Your task to perform on an android device: Open ESPN.com Image 0: 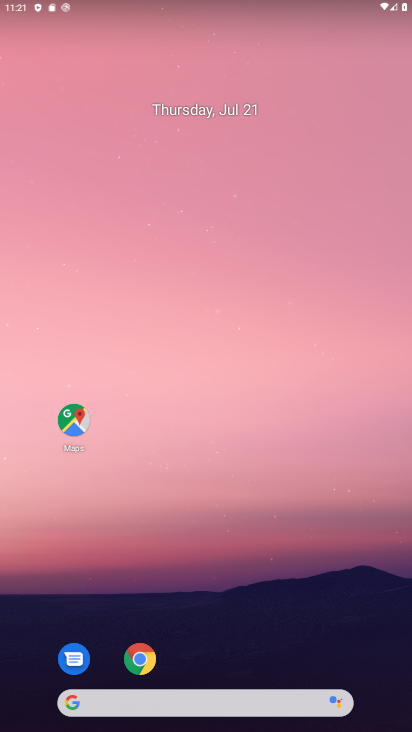
Step 0: click (130, 674)
Your task to perform on an android device: Open ESPN.com Image 1: 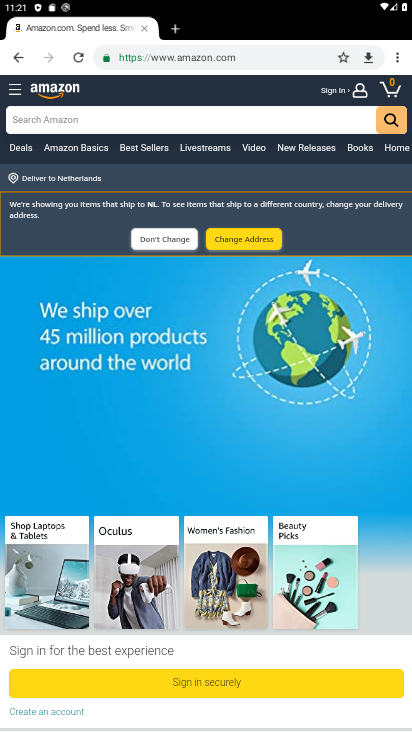
Step 1: click (185, 29)
Your task to perform on an android device: Open ESPN.com Image 2: 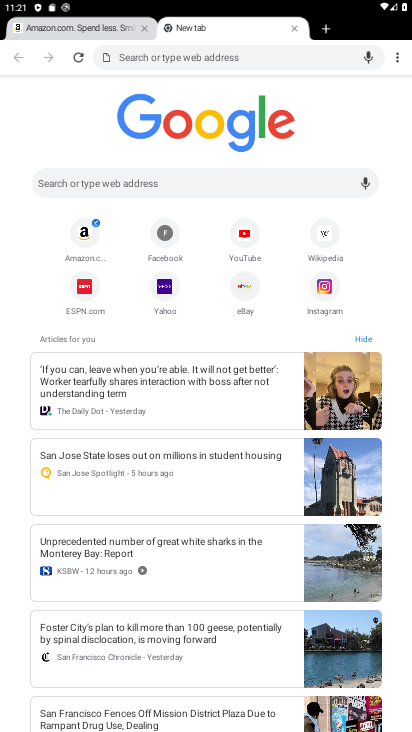
Step 2: click (64, 287)
Your task to perform on an android device: Open ESPN.com Image 3: 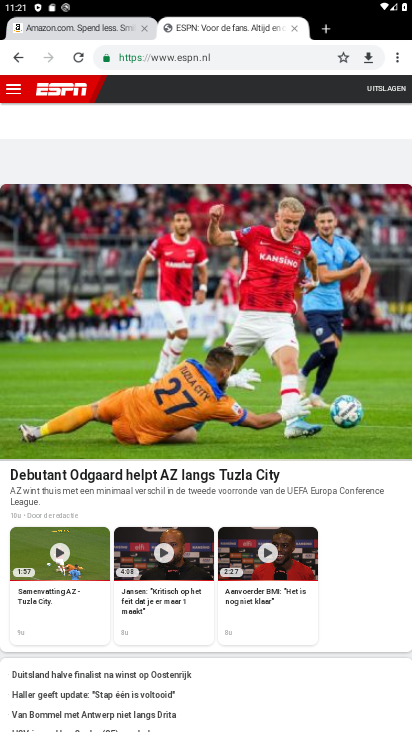
Step 3: task complete